Your task to perform on an android device: open app "Google Play Games" (install if not already installed) Image 0: 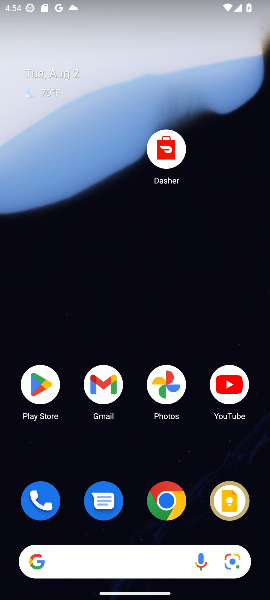
Step 0: click (27, 389)
Your task to perform on an android device: open app "Google Play Games" (install if not already installed) Image 1: 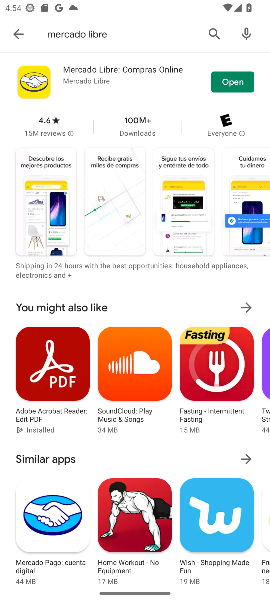
Step 1: click (209, 33)
Your task to perform on an android device: open app "Google Play Games" (install if not already installed) Image 2: 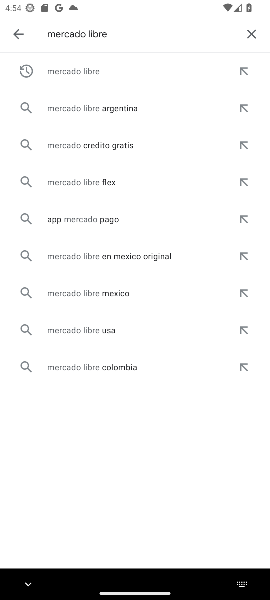
Step 2: click (246, 34)
Your task to perform on an android device: open app "Google Play Games" (install if not already installed) Image 3: 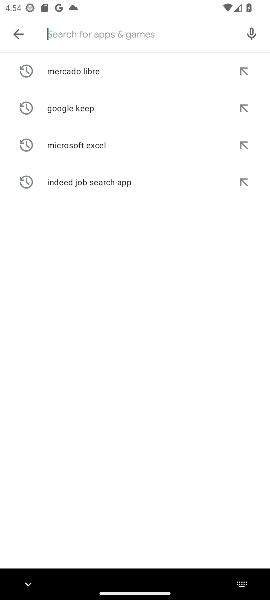
Step 3: type "Google Play Games"
Your task to perform on an android device: open app "Google Play Games" (install if not already installed) Image 4: 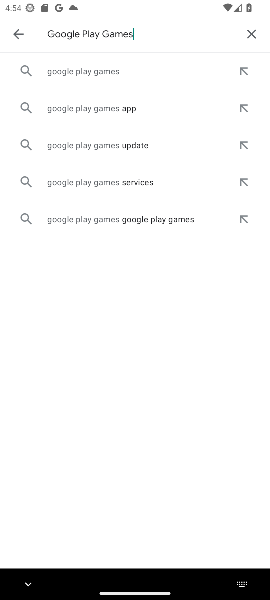
Step 4: click (50, 69)
Your task to perform on an android device: open app "Google Play Games" (install if not already installed) Image 5: 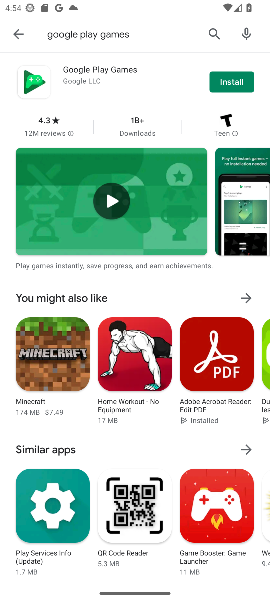
Step 5: click (224, 86)
Your task to perform on an android device: open app "Google Play Games" (install if not already installed) Image 6: 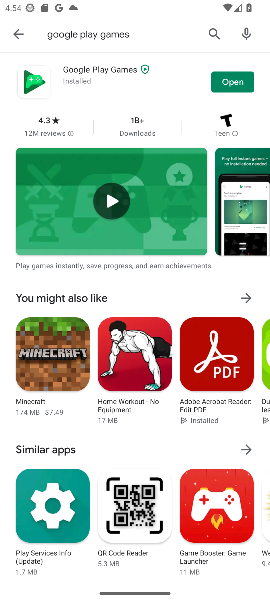
Step 6: click (224, 85)
Your task to perform on an android device: open app "Google Play Games" (install if not already installed) Image 7: 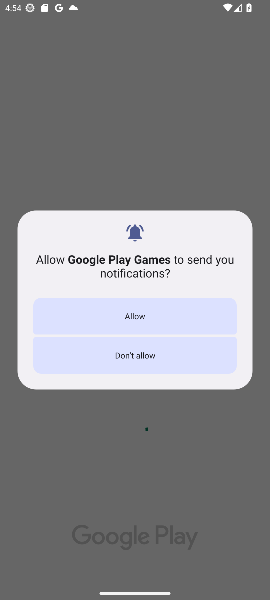
Step 7: task complete